Your task to perform on an android device: open a new tab in the chrome app Image 0: 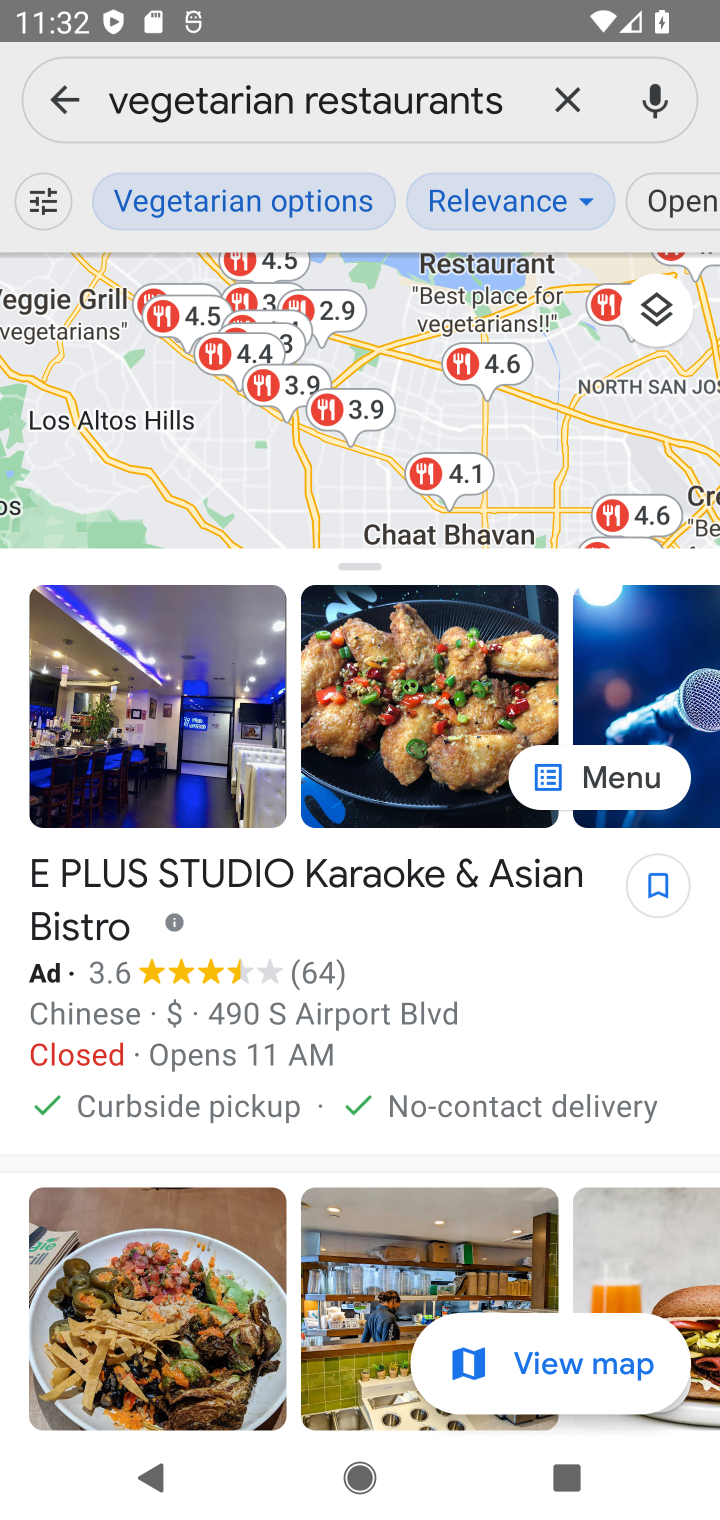
Step 0: press home button
Your task to perform on an android device: open a new tab in the chrome app Image 1: 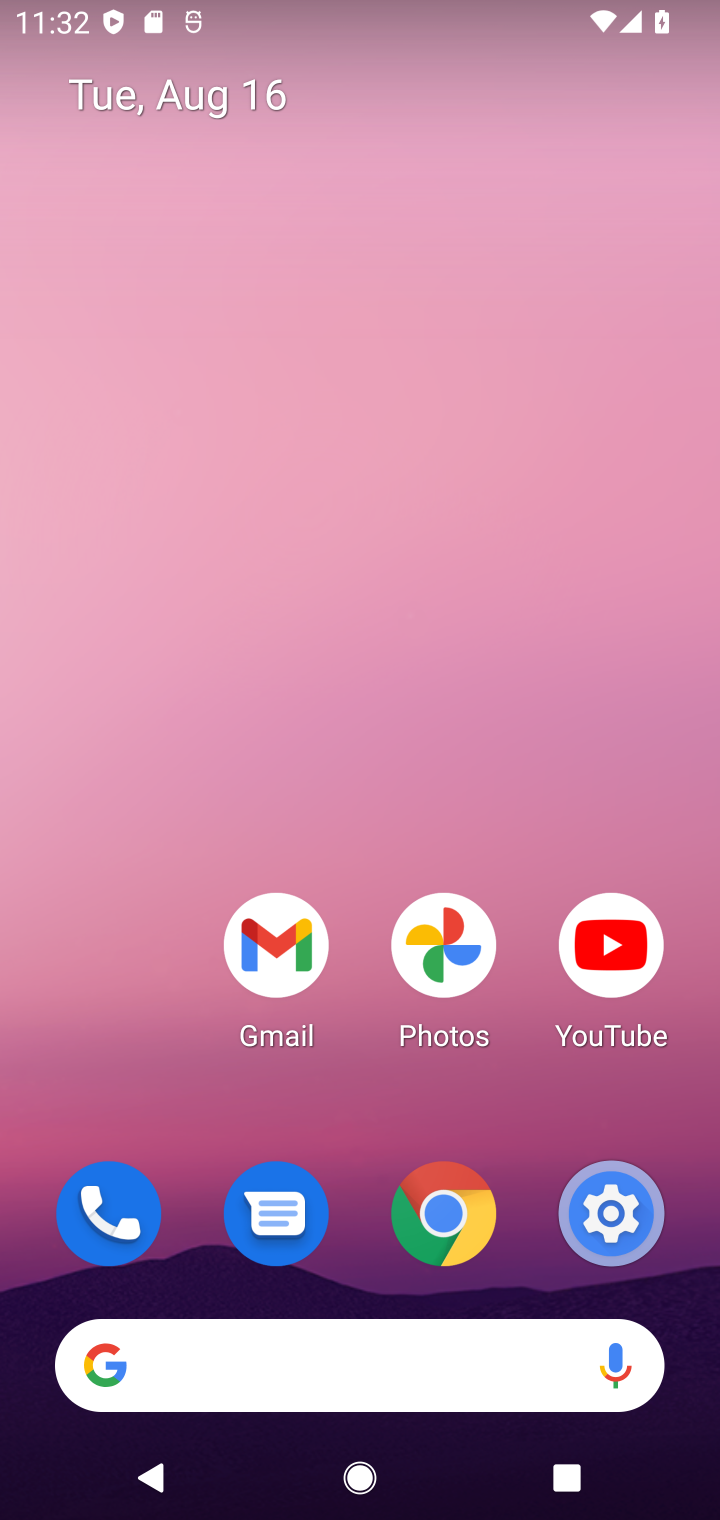
Step 1: drag from (540, 1158) to (534, 164)
Your task to perform on an android device: open a new tab in the chrome app Image 2: 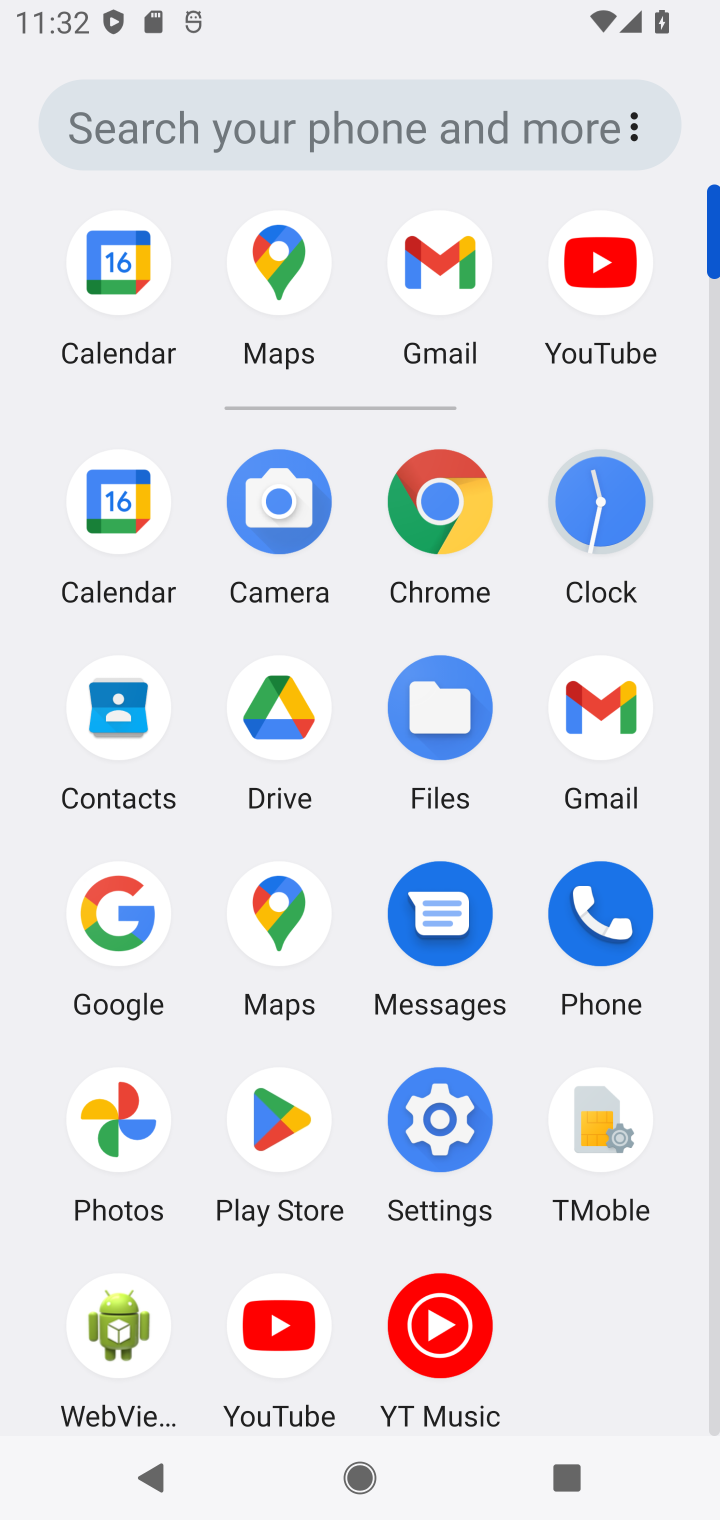
Step 2: click (438, 511)
Your task to perform on an android device: open a new tab in the chrome app Image 3: 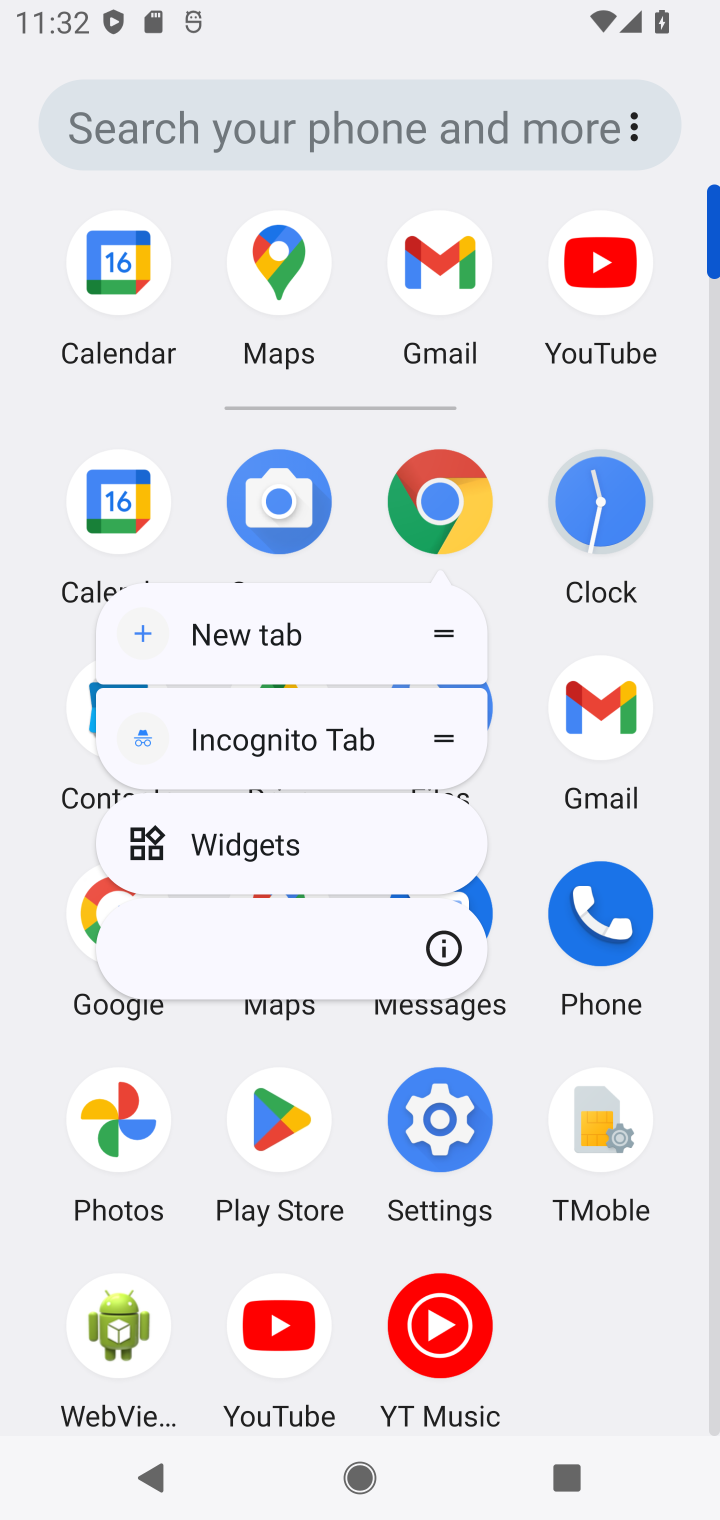
Step 3: click (436, 509)
Your task to perform on an android device: open a new tab in the chrome app Image 4: 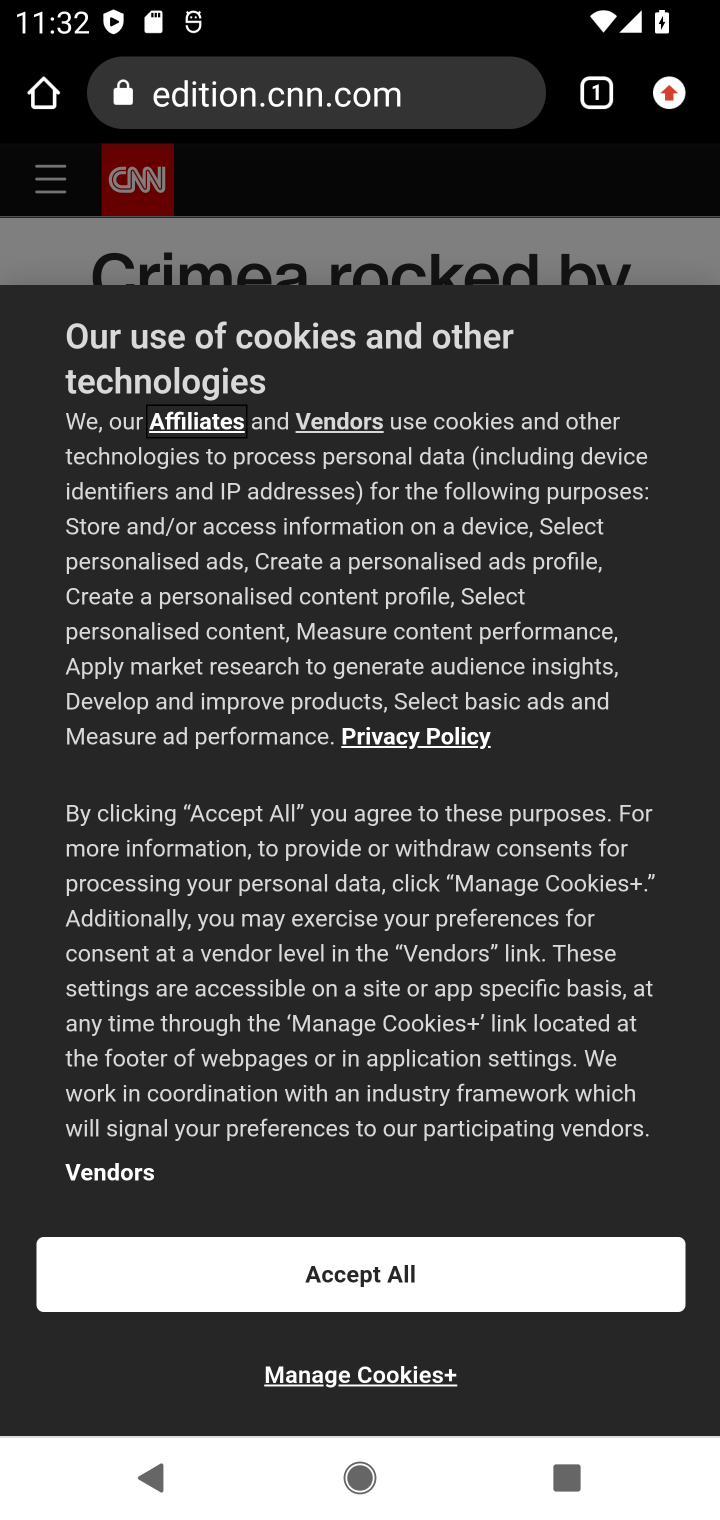
Step 4: task complete